Your task to perform on an android device: delete browsing data in the chrome app Image 0: 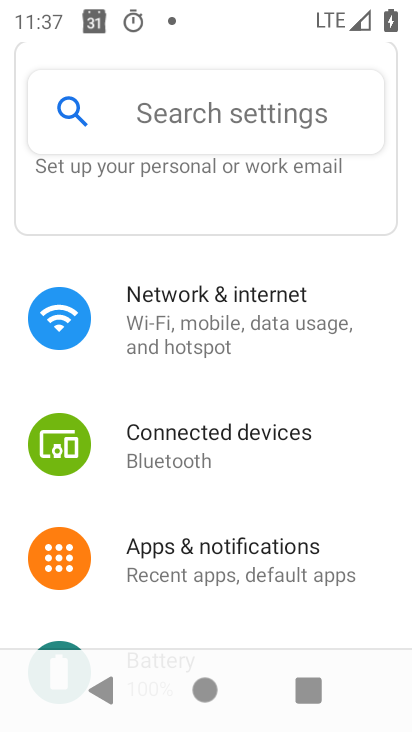
Step 0: press home button
Your task to perform on an android device: delete browsing data in the chrome app Image 1: 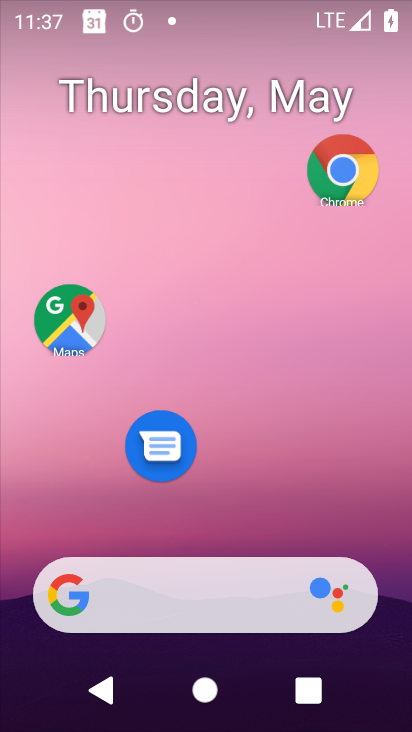
Step 1: drag from (329, 616) to (288, 30)
Your task to perform on an android device: delete browsing data in the chrome app Image 2: 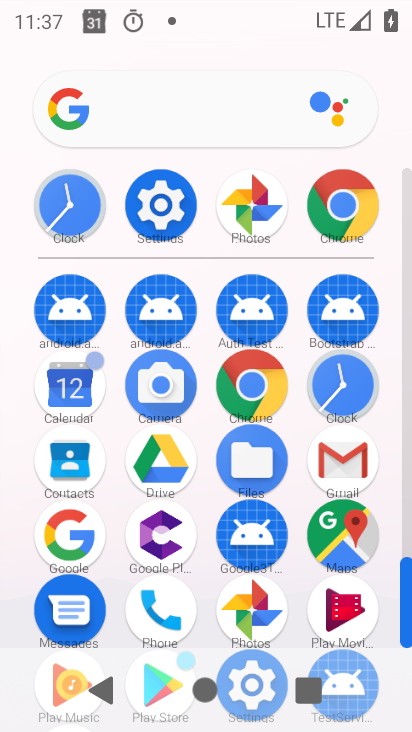
Step 2: click (257, 378)
Your task to perform on an android device: delete browsing data in the chrome app Image 3: 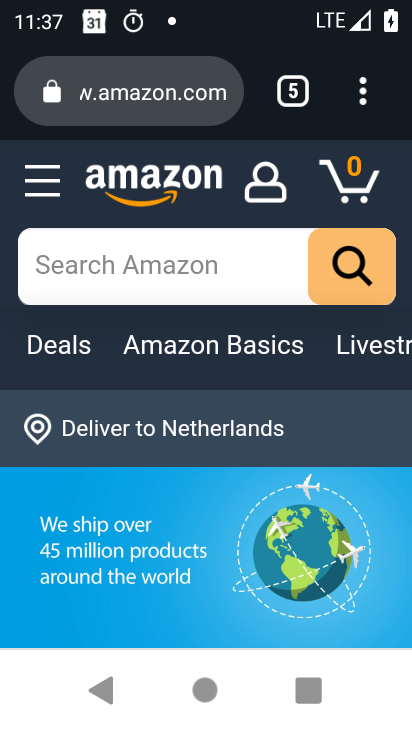
Step 3: click (362, 86)
Your task to perform on an android device: delete browsing data in the chrome app Image 4: 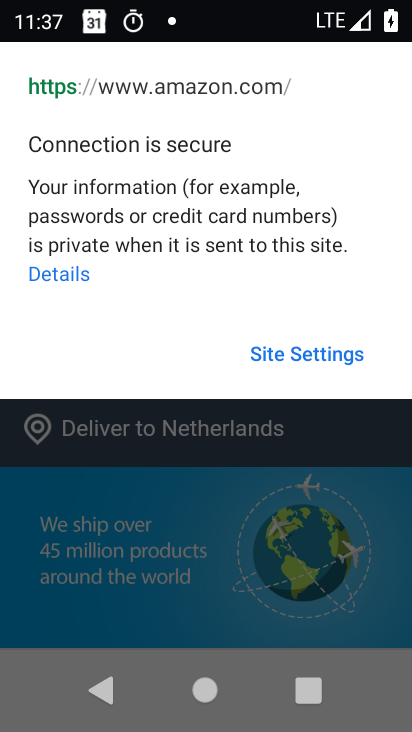
Step 4: press back button
Your task to perform on an android device: delete browsing data in the chrome app Image 5: 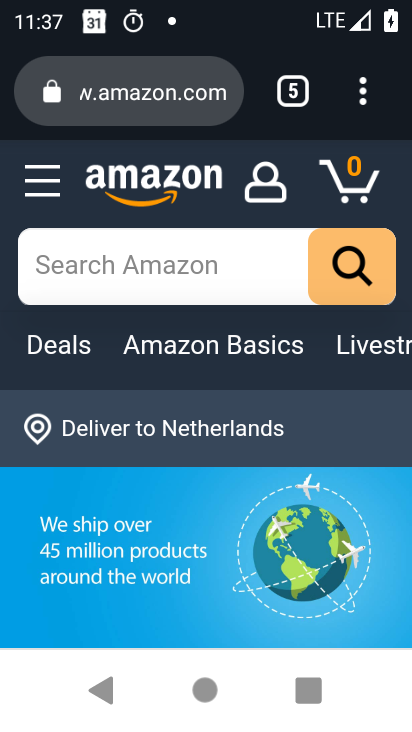
Step 5: drag from (371, 97) to (89, 535)
Your task to perform on an android device: delete browsing data in the chrome app Image 6: 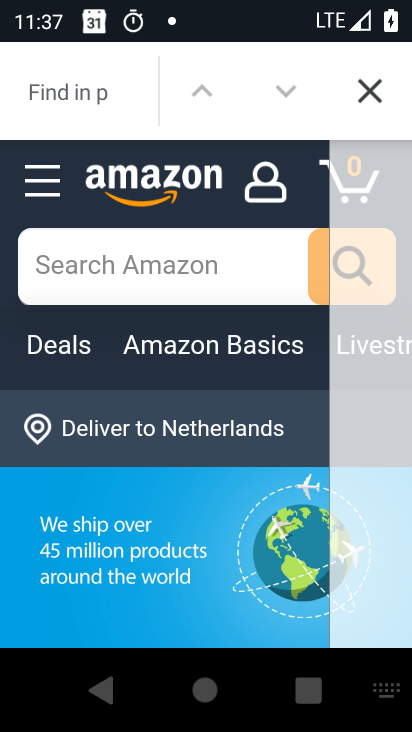
Step 6: press back button
Your task to perform on an android device: delete browsing data in the chrome app Image 7: 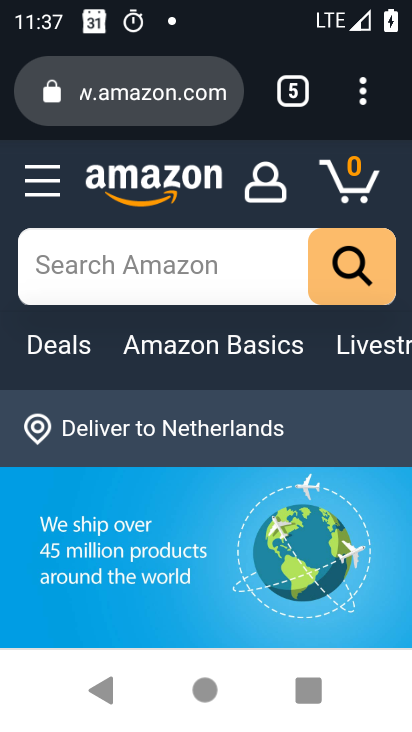
Step 7: drag from (364, 89) to (78, 505)
Your task to perform on an android device: delete browsing data in the chrome app Image 8: 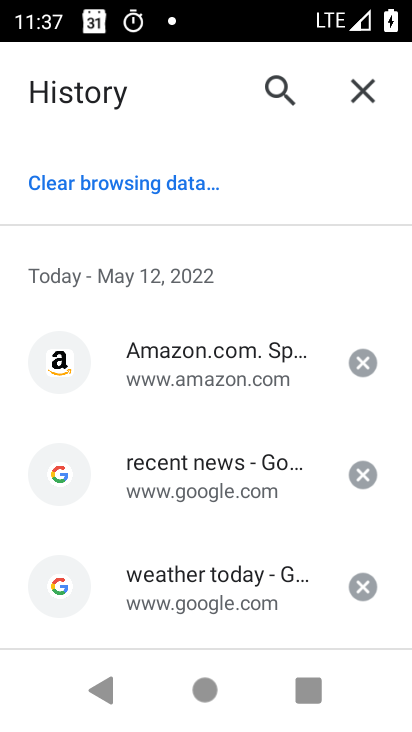
Step 8: click (172, 181)
Your task to perform on an android device: delete browsing data in the chrome app Image 9: 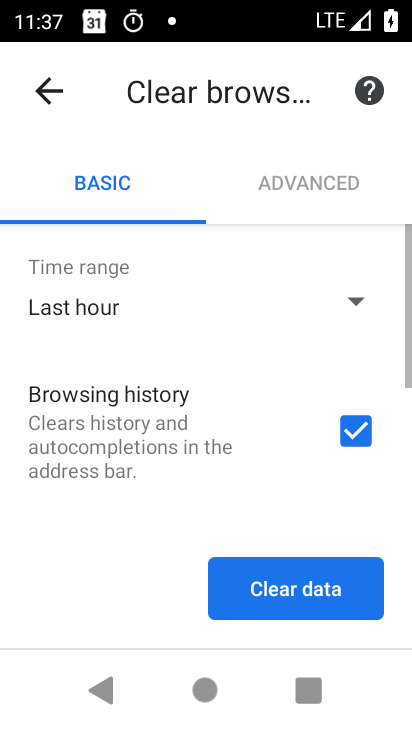
Step 9: click (317, 596)
Your task to perform on an android device: delete browsing data in the chrome app Image 10: 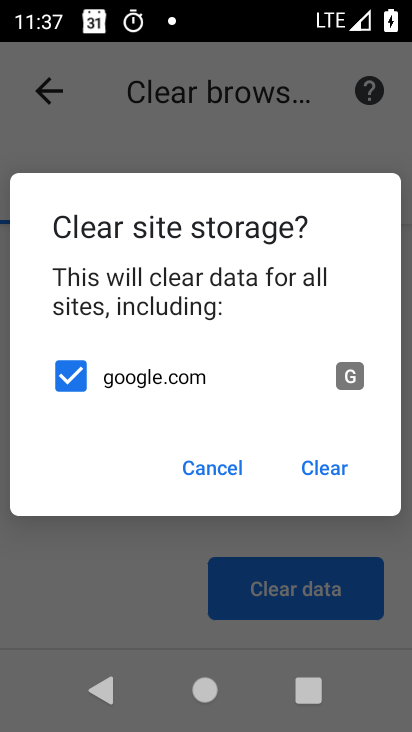
Step 10: click (317, 471)
Your task to perform on an android device: delete browsing data in the chrome app Image 11: 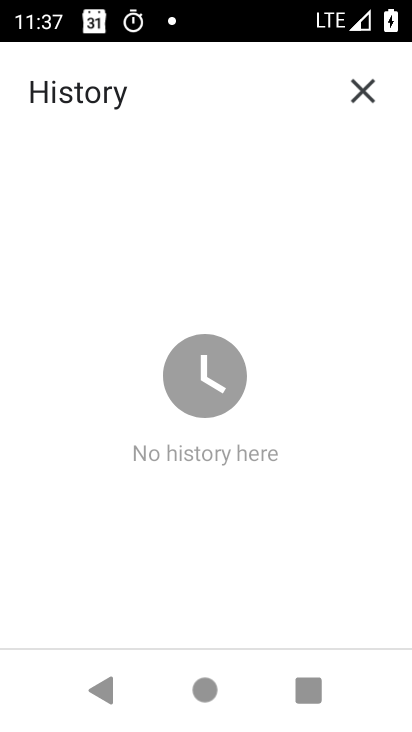
Step 11: task complete